Your task to perform on an android device: Open the Play Movies app and select the watchlist tab. Image 0: 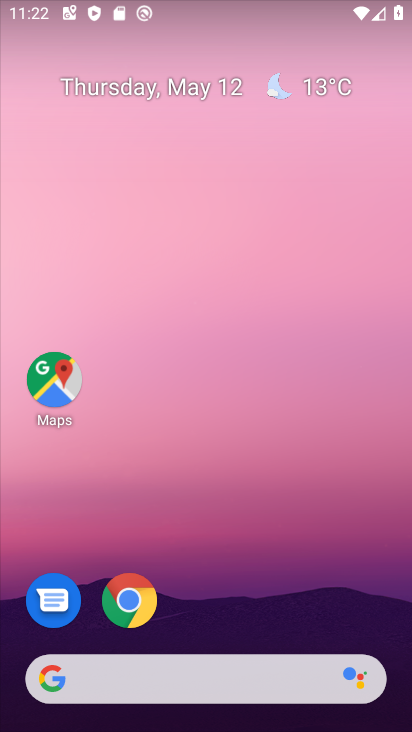
Step 0: drag from (397, 636) to (286, 133)
Your task to perform on an android device: Open the Play Movies app and select the watchlist tab. Image 1: 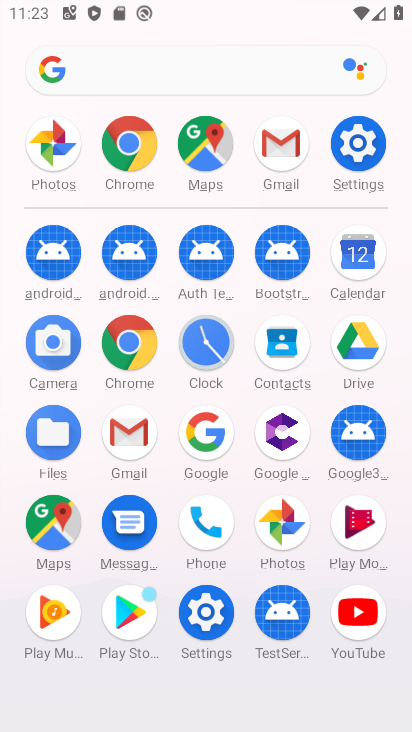
Step 1: click (360, 521)
Your task to perform on an android device: Open the Play Movies app and select the watchlist tab. Image 2: 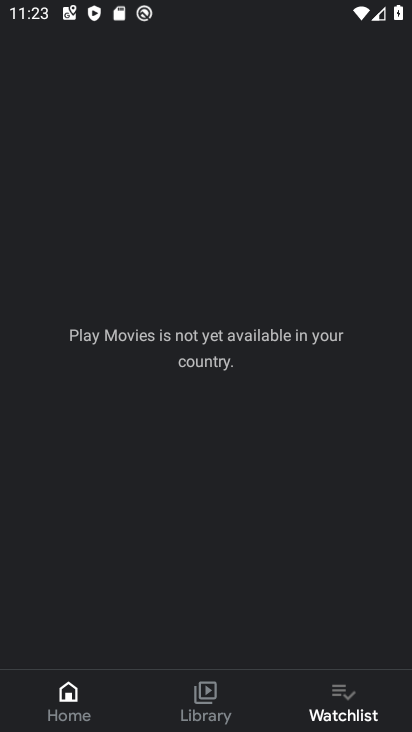
Step 2: click (344, 704)
Your task to perform on an android device: Open the Play Movies app and select the watchlist tab. Image 3: 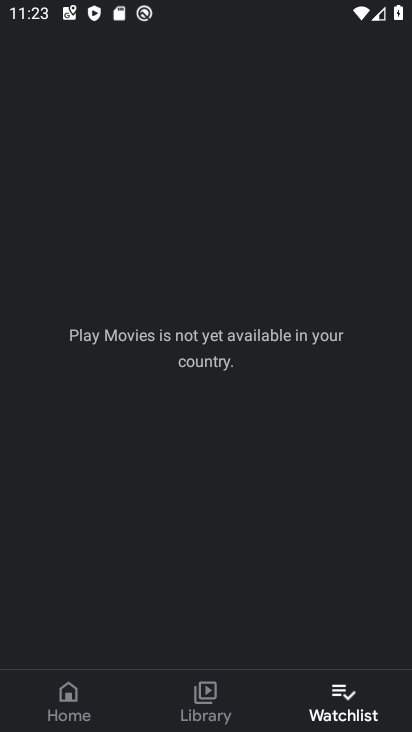
Step 3: task complete